Your task to perform on an android device: Go to Google Image 0: 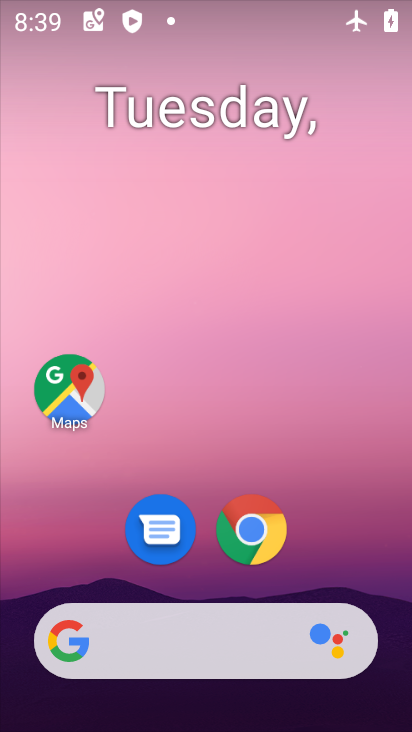
Step 0: drag from (207, 608) to (203, 97)
Your task to perform on an android device: Go to Google Image 1: 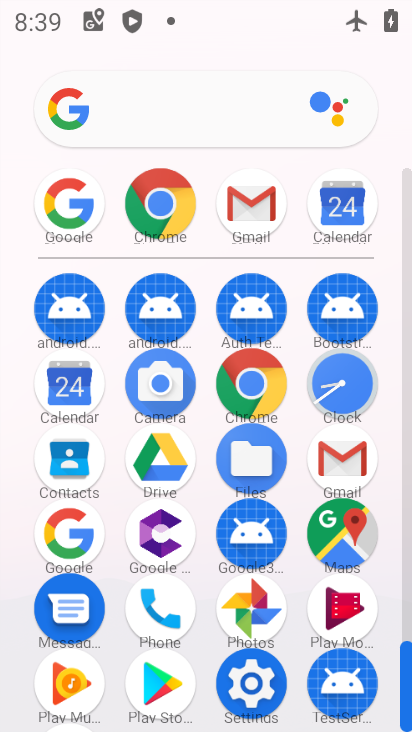
Step 1: click (86, 536)
Your task to perform on an android device: Go to Google Image 2: 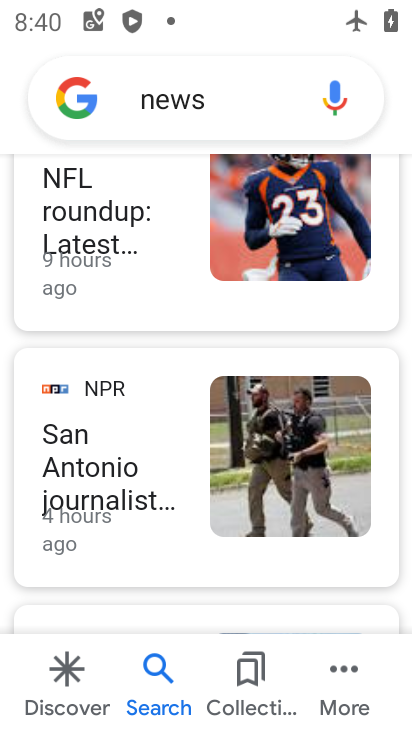
Step 2: task complete